Your task to perform on an android device: add a contact Image 0: 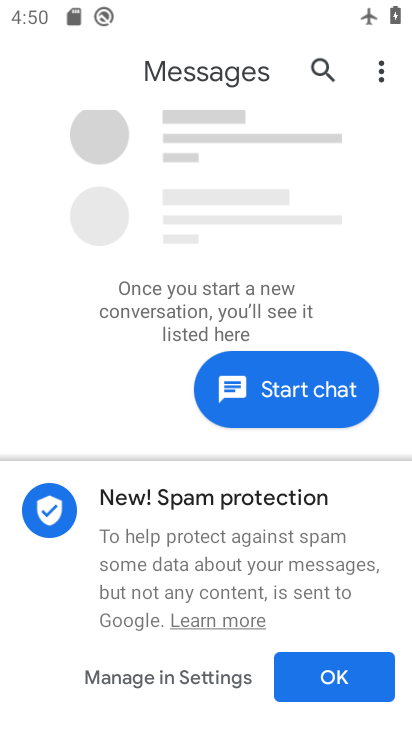
Step 0: press home button
Your task to perform on an android device: add a contact Image 1: 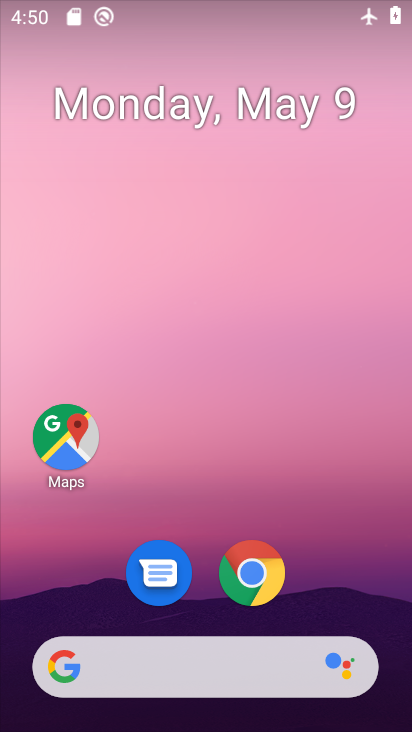
Step 1: drag from (384, 638) to (288, 108)
Your task to perform on an android device: add a contact Image 2: 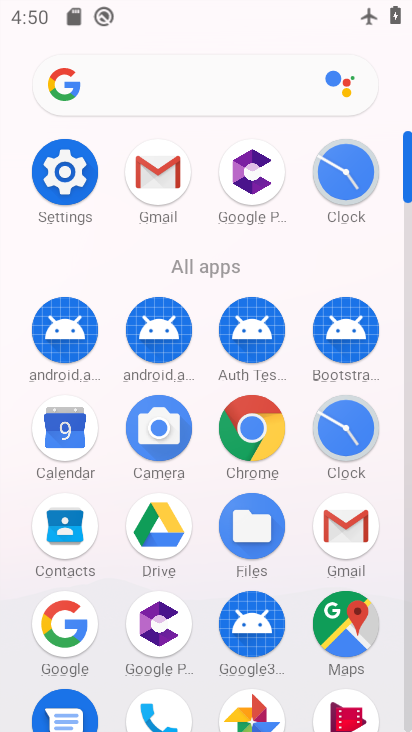
Step 2: click (407, 690)
Your task to perform on an android device: add a contact Image 3: 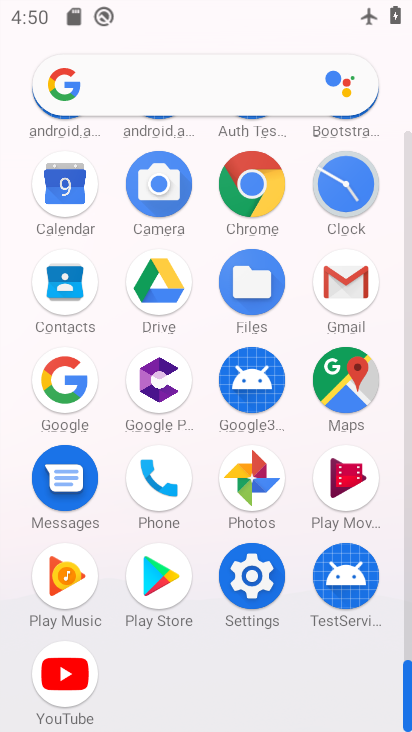
Step 3: click (63, 284)
Your task to perform on an android device: add a contact Image 4: 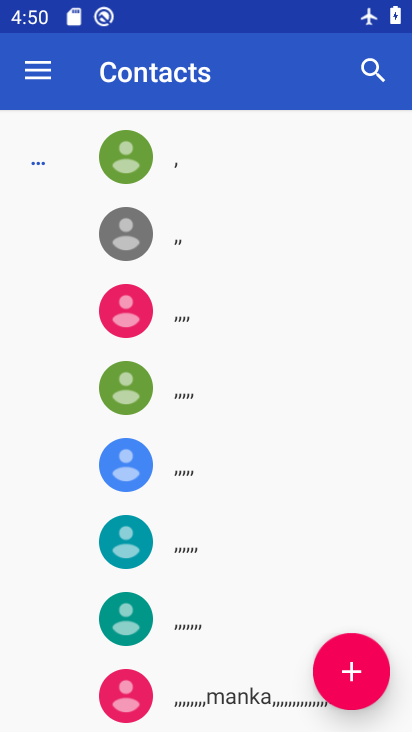
Step 4: click (354, 671)
Your task to perform on an android device: add a contact Image 5: 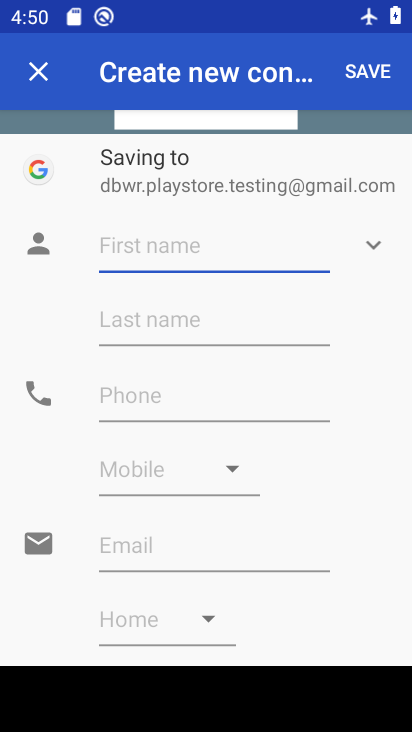
Step 5: type "gjffdy"
Your task to perform on an android device: add a contact Image 6: 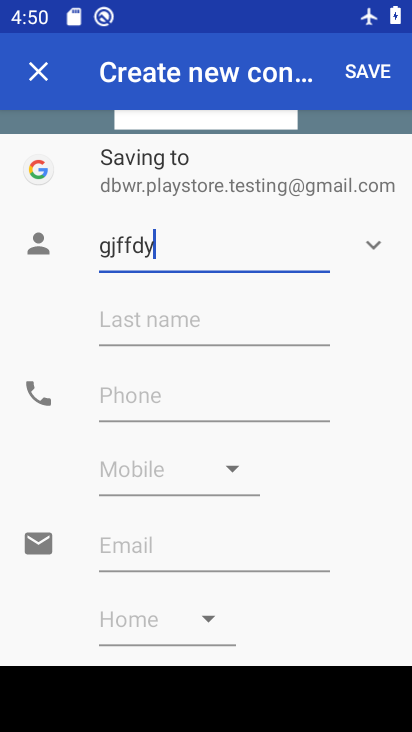
Step 6: click (136, 400)
Your task to perform on an android device: add a contact Image 7: 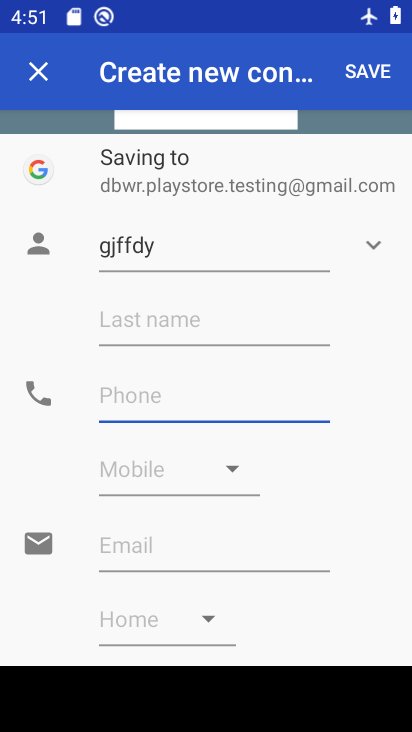
Step 7: type "858846798"
Your task to perform on an android device: add a contact Image 8: 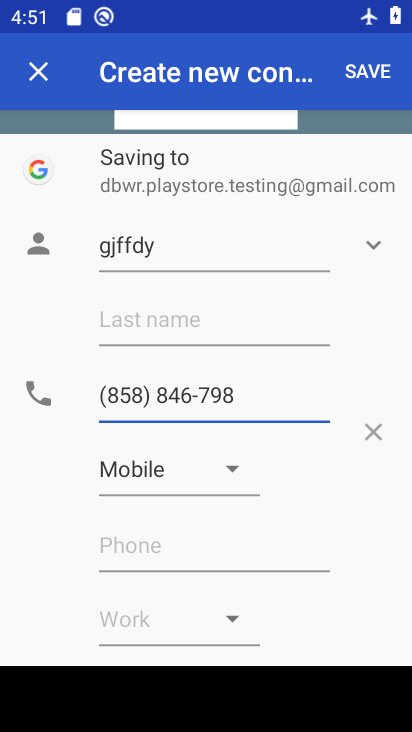
Step 8: click (232, 465)
Your task to perform on an android device: add a contact Image 9: 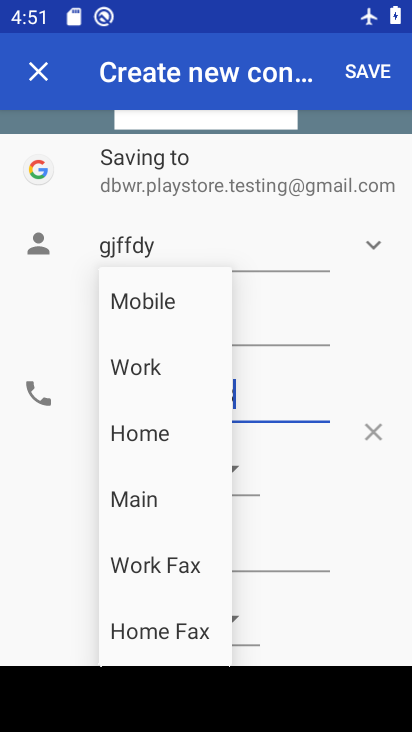
Step 9: click (133, 361)
Your task to perform on an android device: add a contact Image 10: 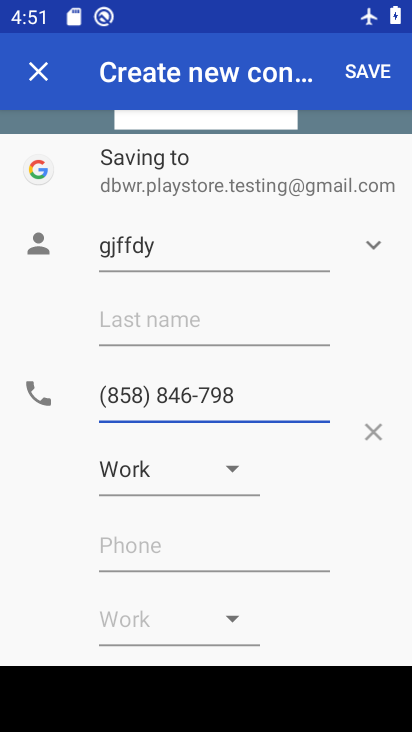
Step 10: click (370, 77)
Your task to perform on an android device: add a contact Image 11: 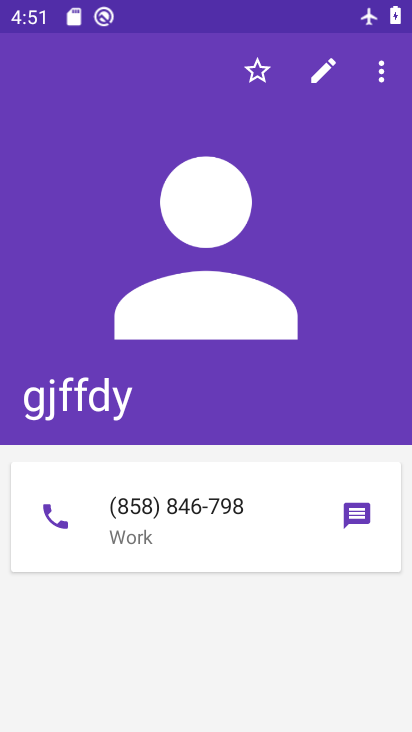
Step 11: task complete